Your task to perform on an android device: Open the Play Movies app and select the watchlist tab. Image 0: 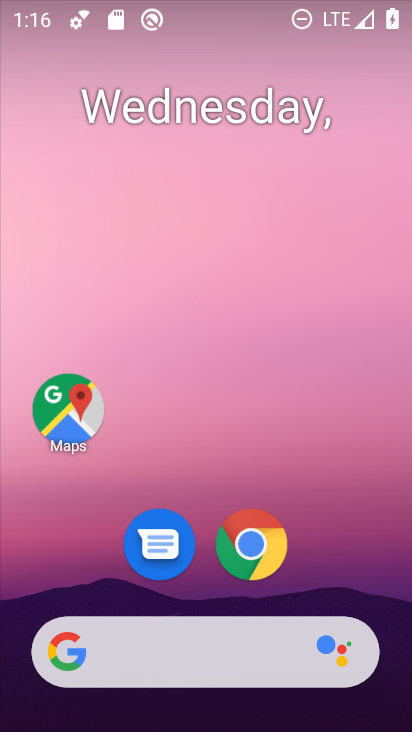
Step 0: drag from (302, 583) to (338, 59)
Your task to perform on an android device: Open the Play Movies app and select the watchlist tab. Image 1: 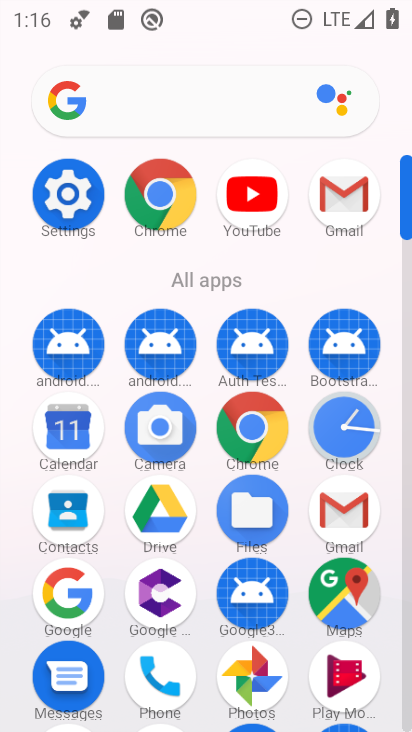
Step 1: click (352, 687)
Your task to perform on an android device: Open the Play Movies app and select the watchlist tab. Image 2: 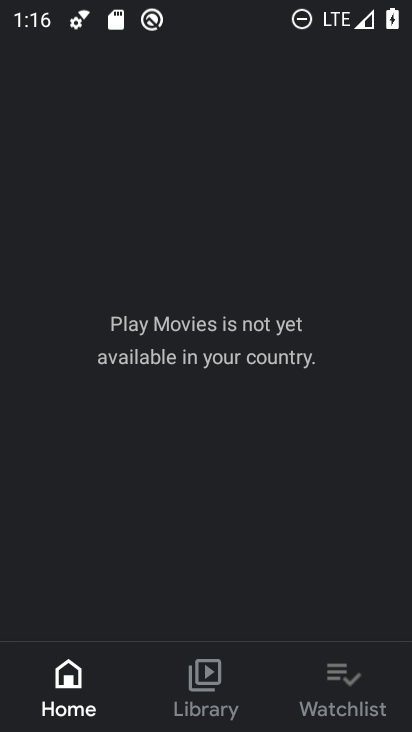
Step 2: click (350, 690)
Your task to perform on an android device: Open the Play Movies app and select the watchlist tab. Image 3: 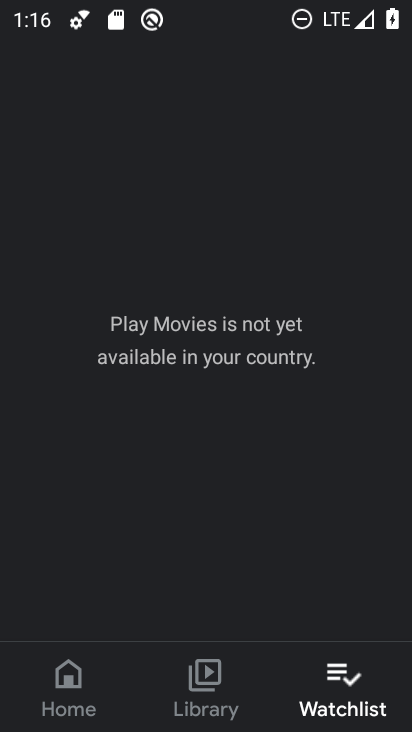
Step 3: task complete